Your task to perform on an android device: turn on javascript in the chrome app Image 0: 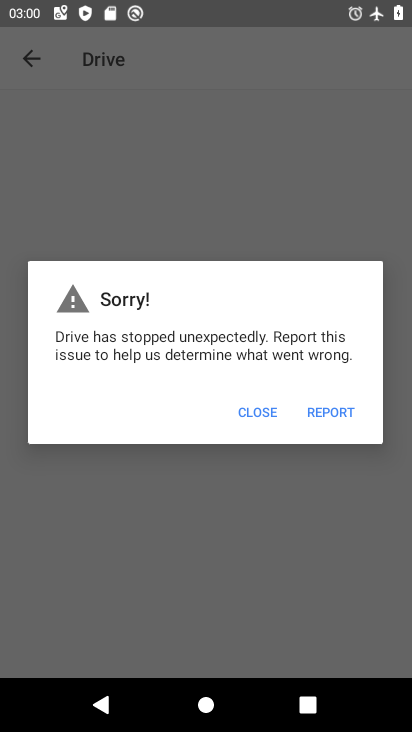
Step 0: press home button
Your task to perform on an android device: turn on javascript in the chrome app Image 1: 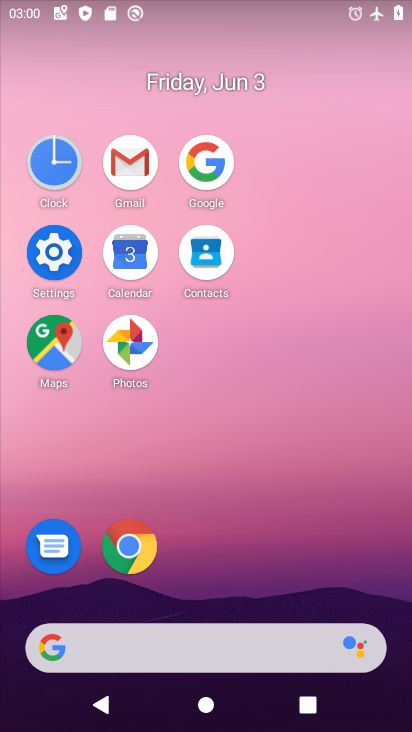
Step 1: click (138, 542)
Your task to perform on an android device: turn on javascript in the chrome app Image 2: 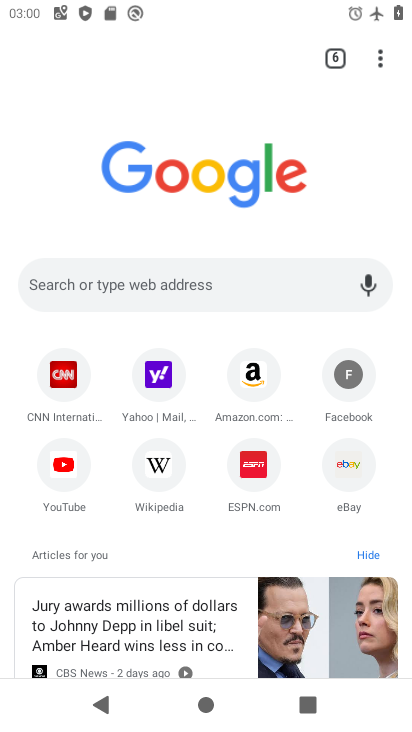
Step 2: click (381, 58)
Your task to perform on an android device: turn on javascript in the chrome app Image 3: 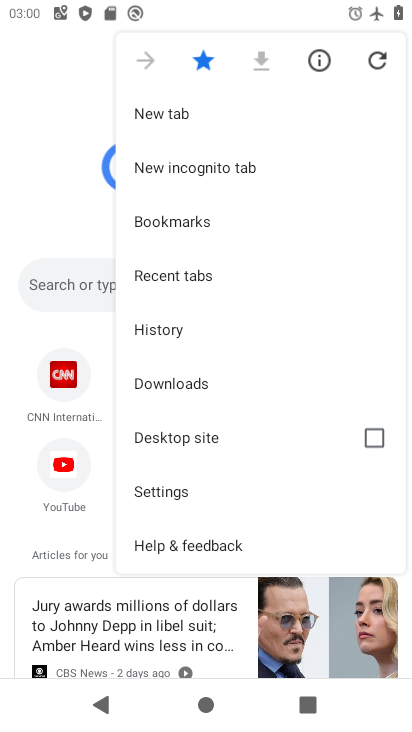
Step 3: click (205, 479)
Your task to perform on an android device: turn on javascript in the chrome app Image 4: 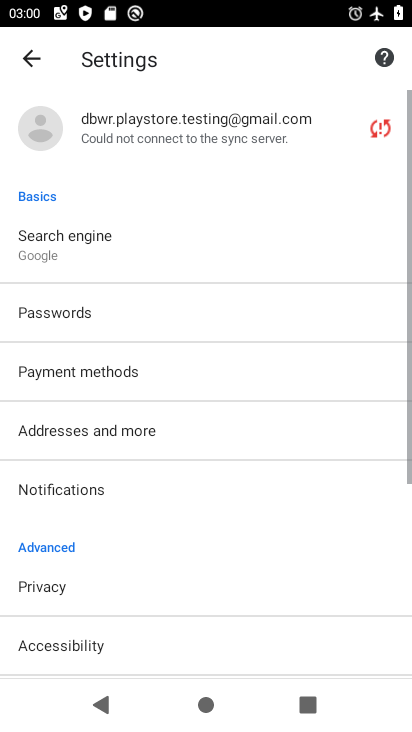
Step 4: drag from (205, 479) to (253, 194)
Your task to perform on an android device: turn on javascript in the chrome app Image 5: 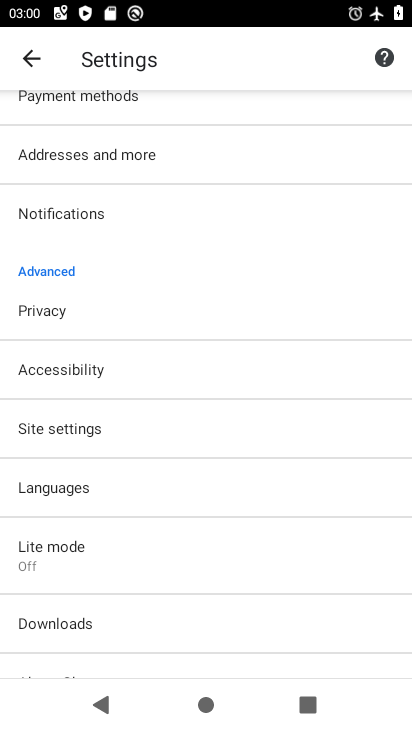
Step 5: click (134, 430)
Your task to perform on an android device: turn on javascript in the chrome app Image 6: 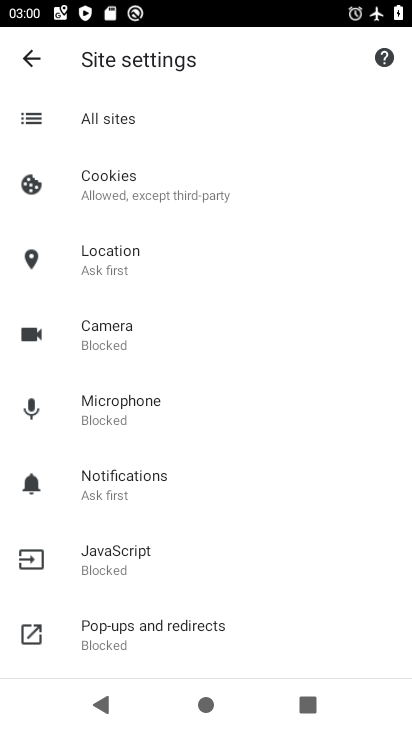
Step 6: click (135, 561)
Your task to perform on an android device: turn on javascript in the chrome app Image 7: 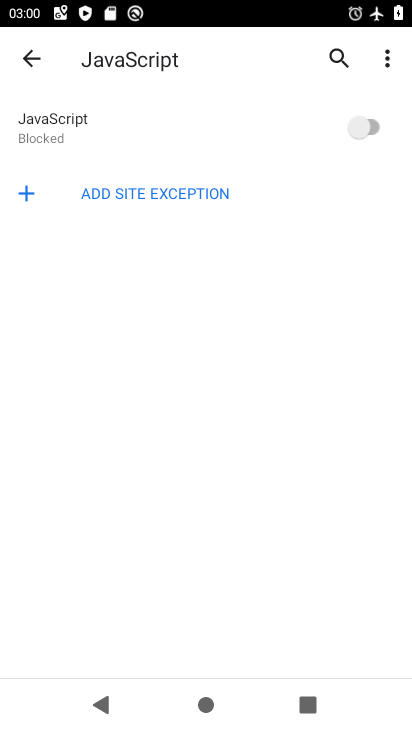
Step 7: click (380, 127)
Your task to perform on an android device: turn on javascript in the chrome app Image 8: 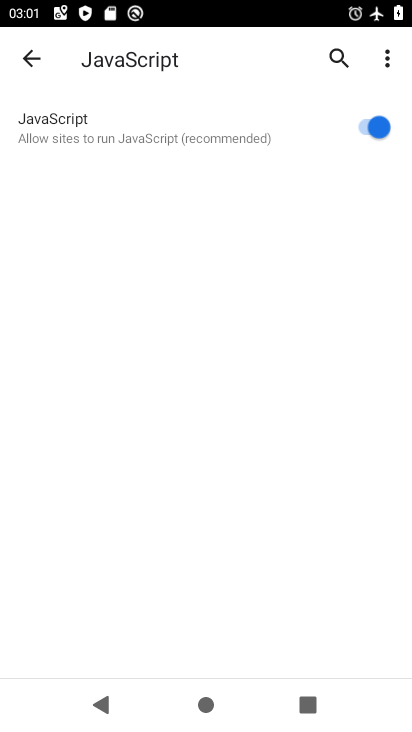
Step 8: task complete